Your task to perform on an android device: Open calendar and show me the third week of next month Image 0: 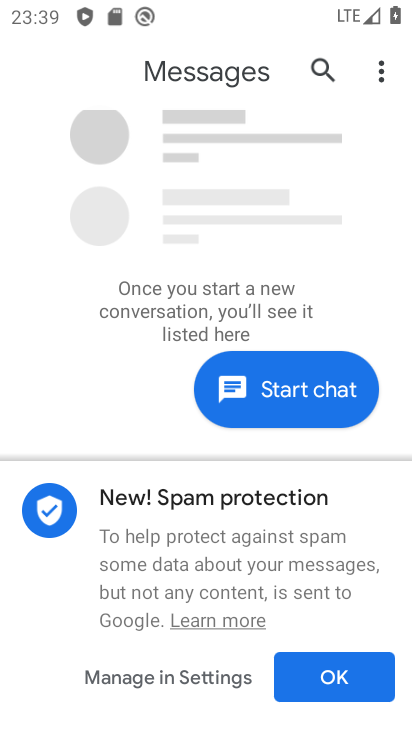
Step 0: press home button
Your task to perform on an android device: Open calendar and show me the third week of next month Image 1: 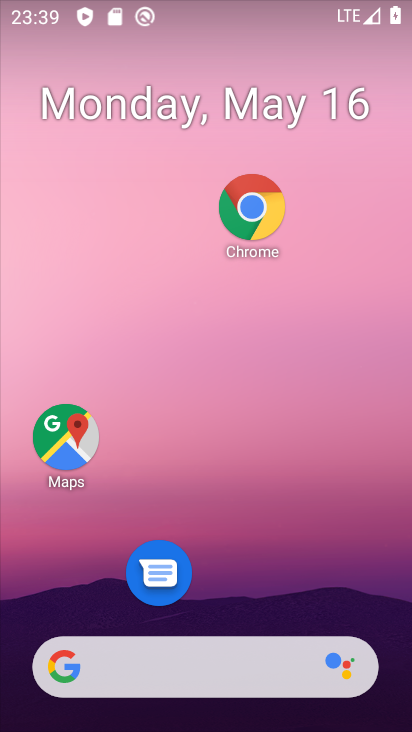
Step 1: drag from (246, 649) to (288, 84)
Your task to perform on an android device: Open calendar and show me the third week of next month Image 2: 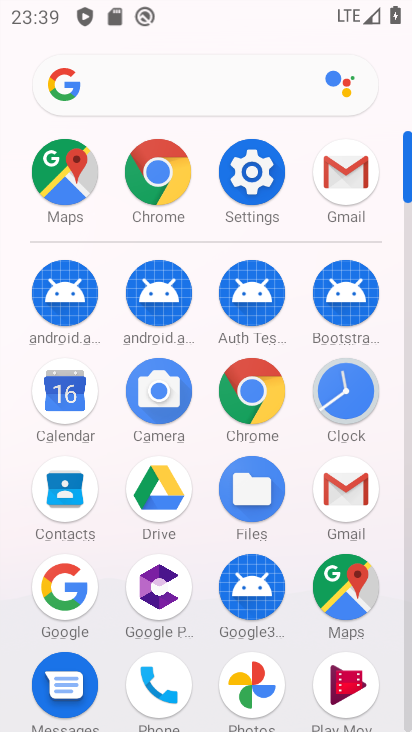
Step 2: click (70, 386)
Your task to perform on an android device: Open calendar and show me the third week of next month Image 3: 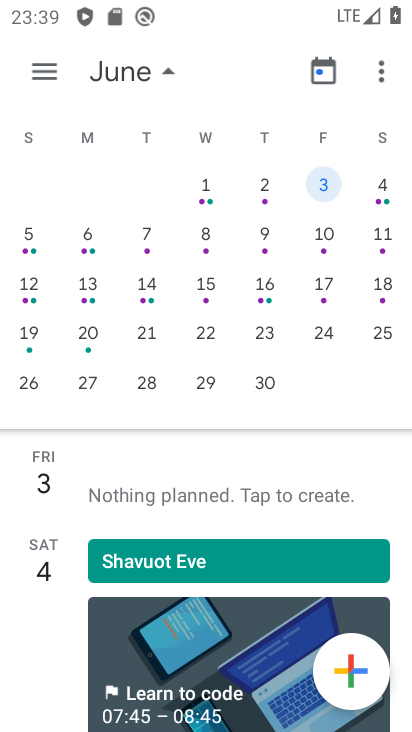
Step 3: drag from (378, 306) to (3, 238)
Your task to perform on an android device: Open calendar and show me the third week of next month Image 4: 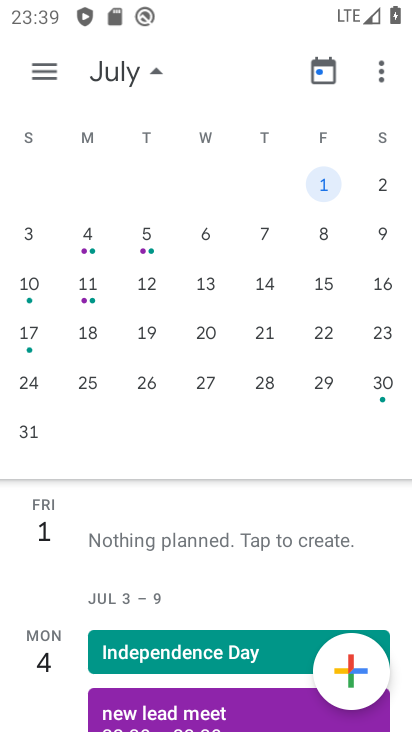
Step 4: click (252, 283)
Your task to perform on an android device: Open calendar and show me the third week of next month Image 5: 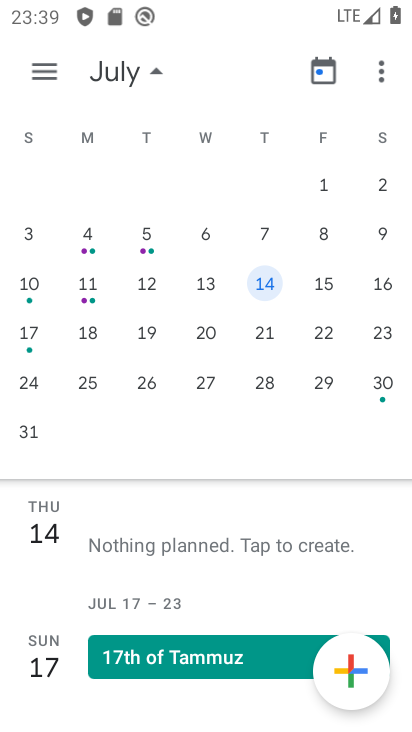
Step 5: click (49, 67)
Your task to perform on an android device: Open calendar and show me the third week of next month Image 6: 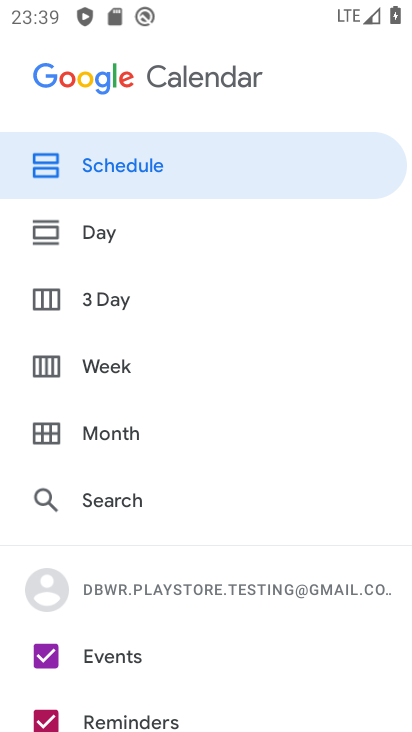
Step 6: click (126, 382)
Your task to perform on an android device: Open calendar and show me the third week of next month Image 7: 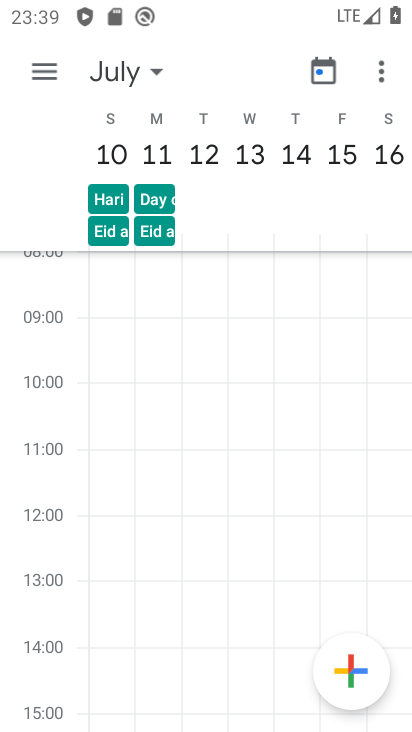
Step 7: task complete